Your task to perform on an android device: Open calendar and show me the first week of next month Image 0: 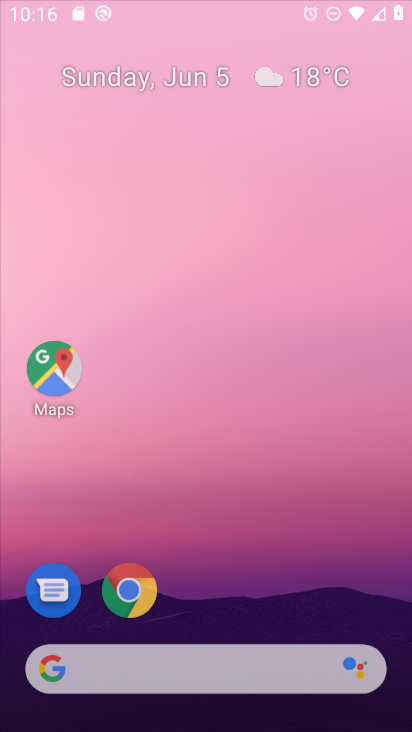
Step 0: drag from (245, 488) to (230, 20)
Your task to perform on an android device: Open calendar and show me the first week of next month Image 1: 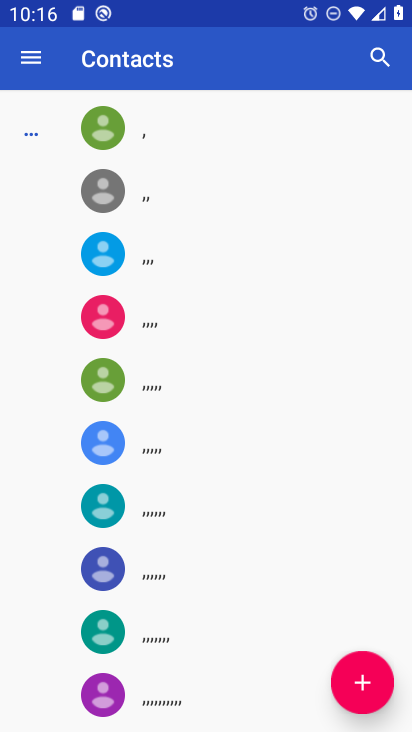
Step 1: press home button
Your task to perform on an android device: Open calendar and show me the first week of next month Image 2: 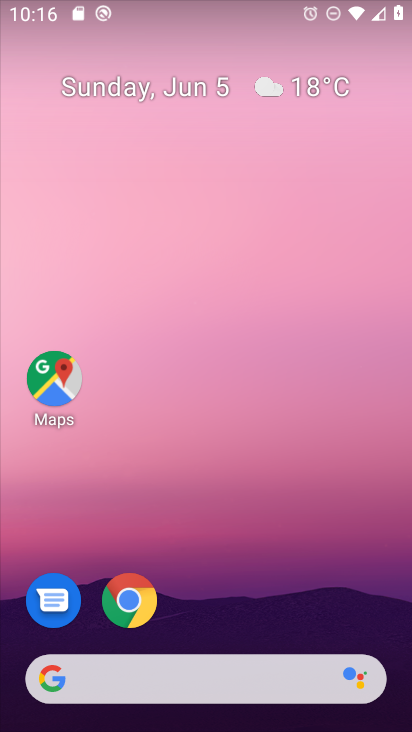
Step 2: drag from (266, 549) to (252, 84)
Your task to perform on an android device: Open calendar and show me the first week of next month Image 3: 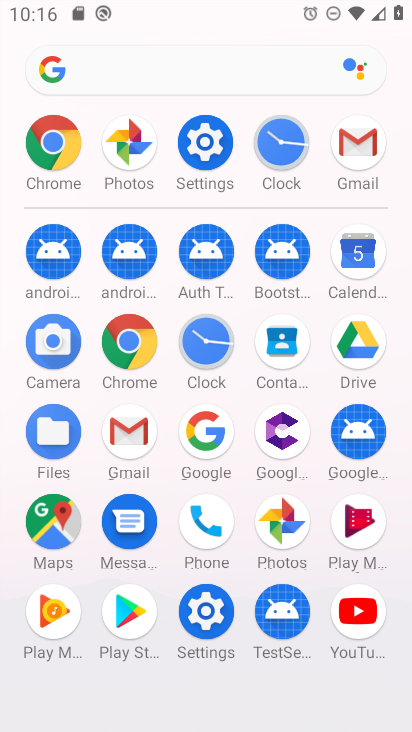
Step 3: click (346, 250)
Your task to perform on an android device: Open calendar and show me the first week of next month Image 4: 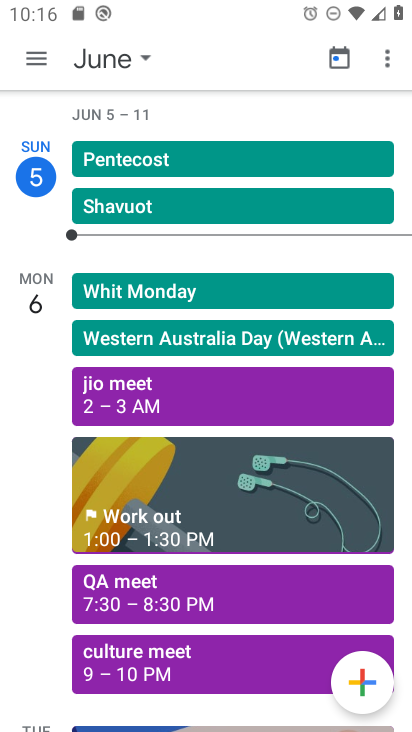
Step 4: click (40, 56)
Your task to perform on an android device: Open calendar and show me the first week of next month Image 5: 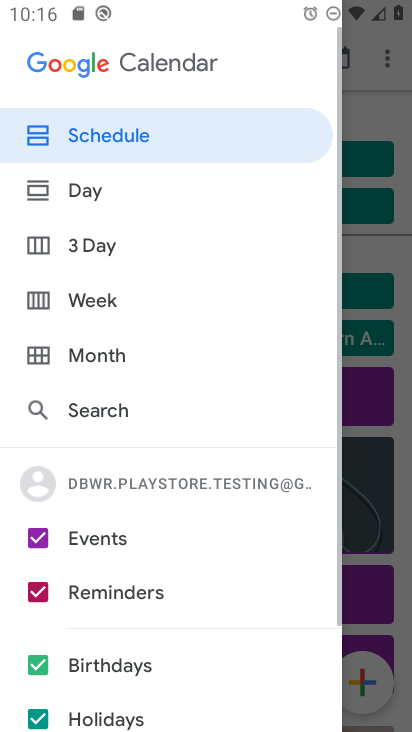
Step 5: click (73, 294)
Your task to perform on an android device: Open calendar and show me the first week of next month Image 6: 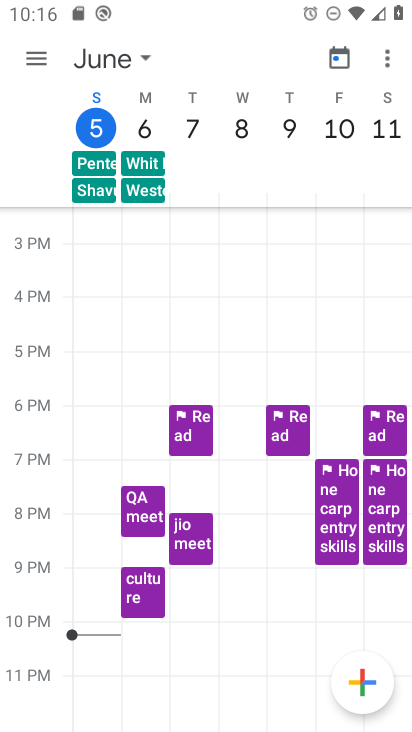
Step 6: task complete